Your task to perform on an android device: What's the news in Bolivia? Image 0: 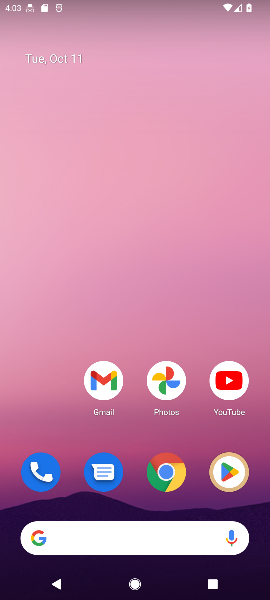
Step 0: click (161, 483)
Your task to perform on an android device: What's the news in Bolivia? Image 1: 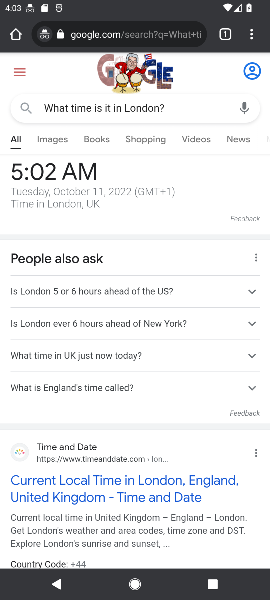
Step 1: click (89, 39)
Your task to perform on an android device: What's the news in Bolivia? Image 2: 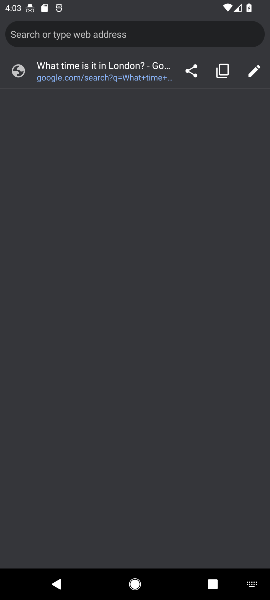
Step 2: type "What's the news in Bolivia?"
Your task to perform on an android device: What's the news in Bolivia? Image 3: 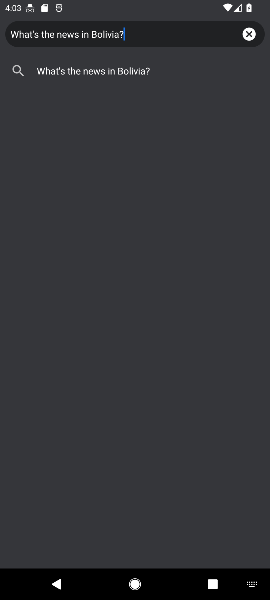
Step 3: click (45, 70)
Your task to perform on an android device: What's the news in Bolivia? Image 4: 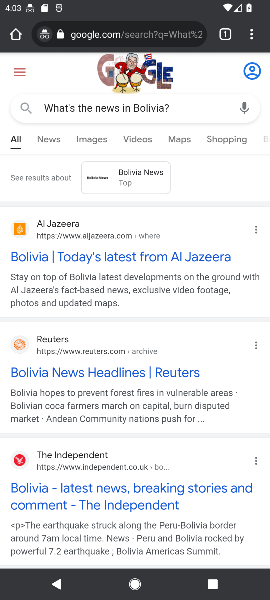
Step 4: click (51, 141)
Your task to perform on an android device: What's the news in Bolivia? Image 5: 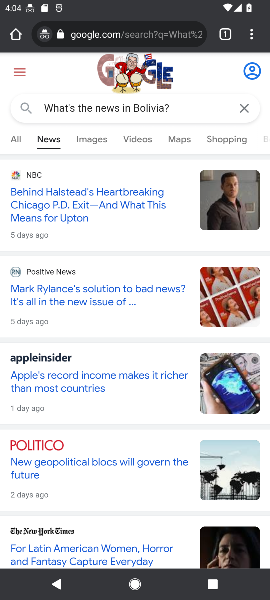
Step 5: task complete